Your task to perform on an android device: Show me productivity apps on the Play Store Image 0: 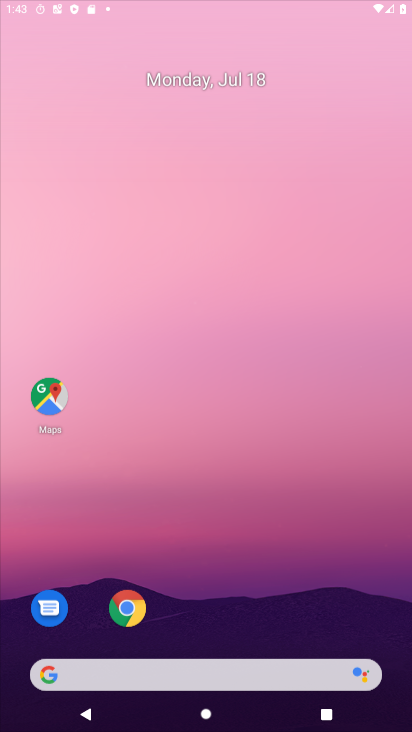
Step 0: click (298, 120)
Your task to perform on an android device: Show me productivity apps on the Play Store Image 1: 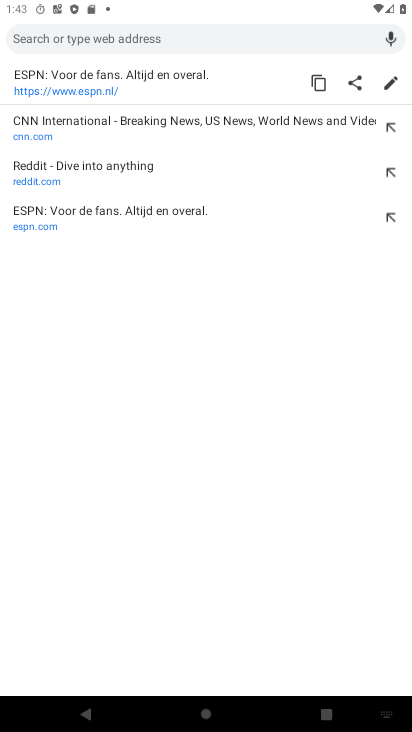
Step 1: press home button
Your task to perform on an android device: Show me productivity apps on the Play Store Image 2: 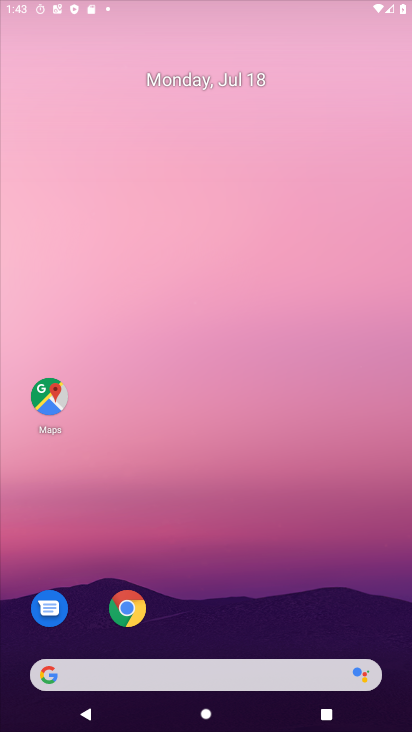
Step 2: drag from (246, 723) to (246, 132)
Your task to perform on an android device: Show me productivity apps on the Play Store Image 3: 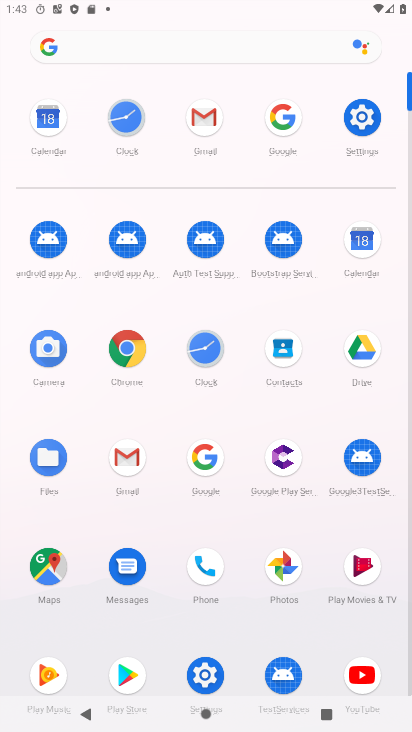
Step 3: click (126, 675)
Your task to perform on an android device: Show me productivity apps on the Play Store Image 4: 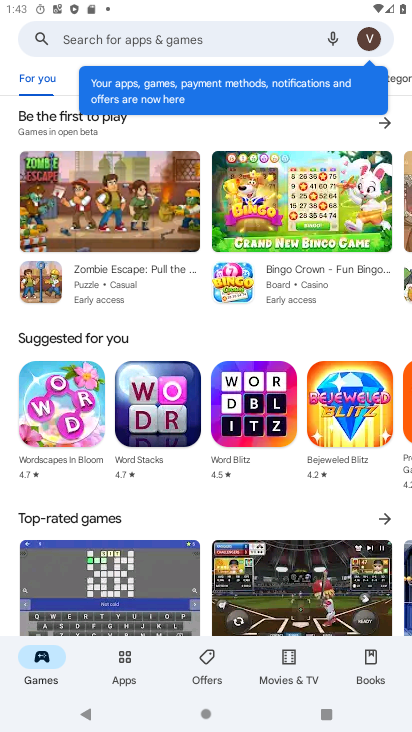
Step 4: click (124, 662)
Your task to perform on an android device: Show me productivity apps on the Play Store Image 5: 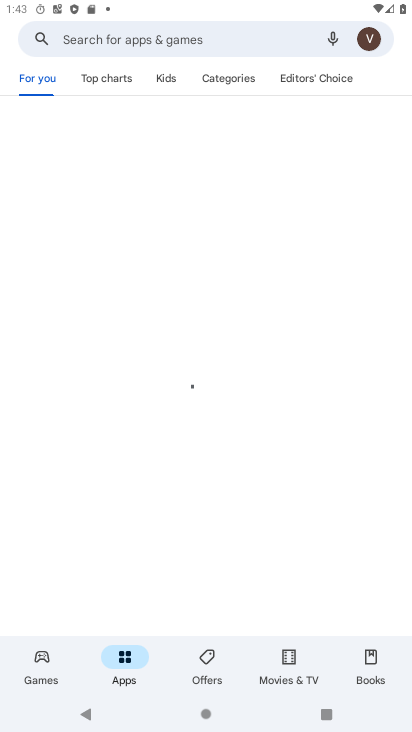
Step 5: click (218, 76)
Your task to perform on an android device: Show me productivity apps on the Play Store Image 6: 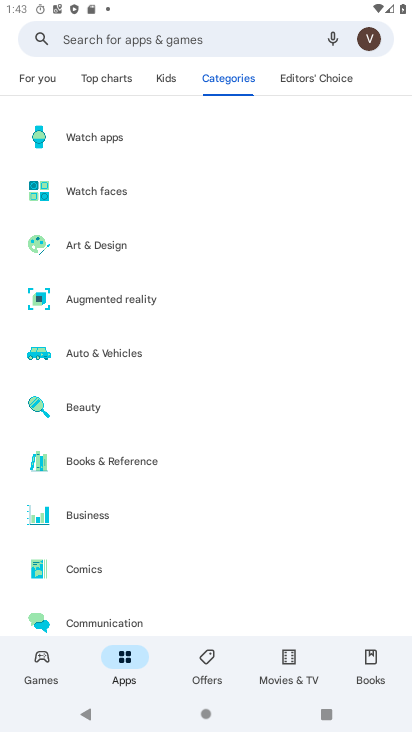
Step 6: drag from (112, 573) to (137, 227)
Your task to perform on an android device: Show me productivity apps on the Play Store Image 7: 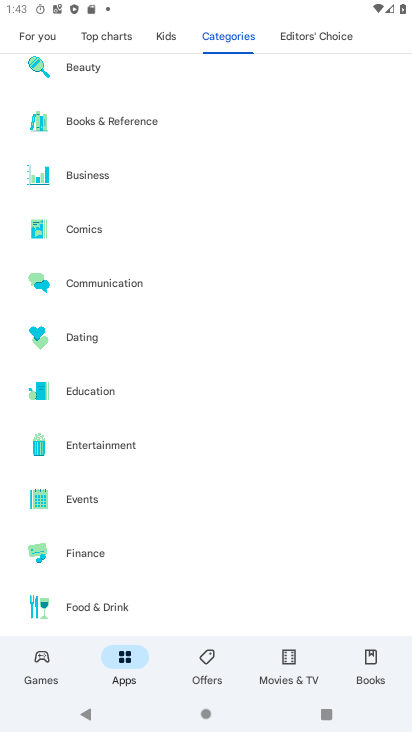
Step 7: drag from (87, 606) to (92, 194)
Your task to perform on an android device: Show me productivity apps on the Play Store Image 8: 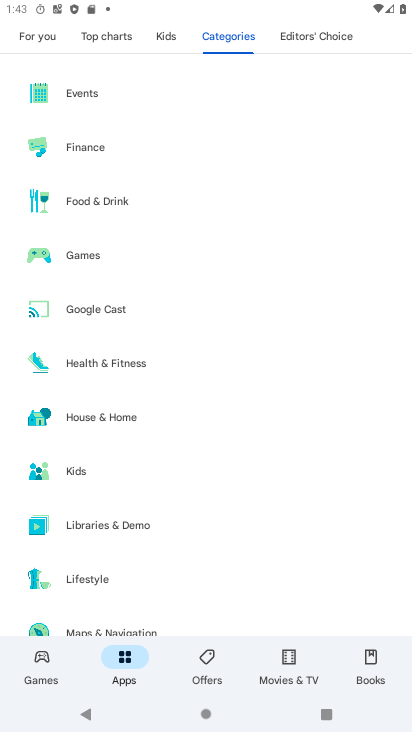
Step 8: drag from (100, 536) to (101, 268)
Your task to perform on an android device: Show me productivity apps on the Play Store Image 9: 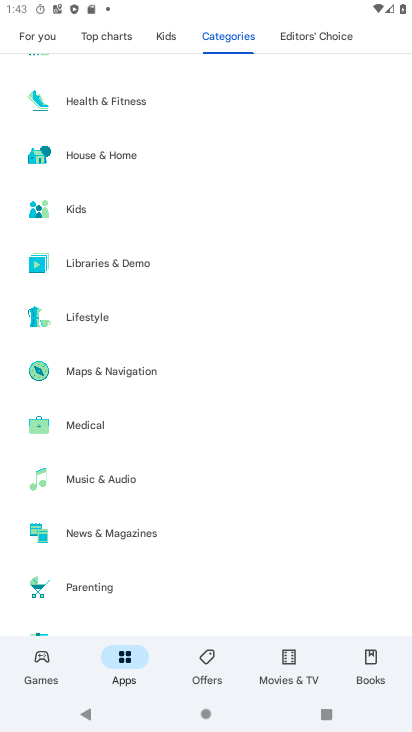
Step 9: drag from (80, 593) to (80, 263)
Your task to perform on an android device: Show me productivity apps on the Play Store Image 10: 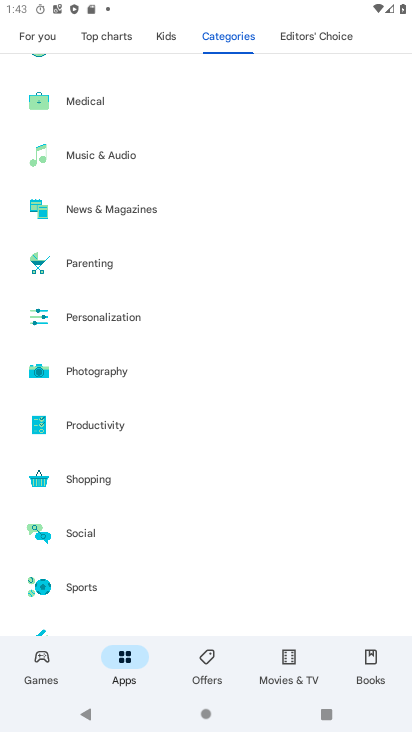
Step 10: click (94, 425)
Your task to perform on an android device: Show me productivity apps on the Play Store Image 11: 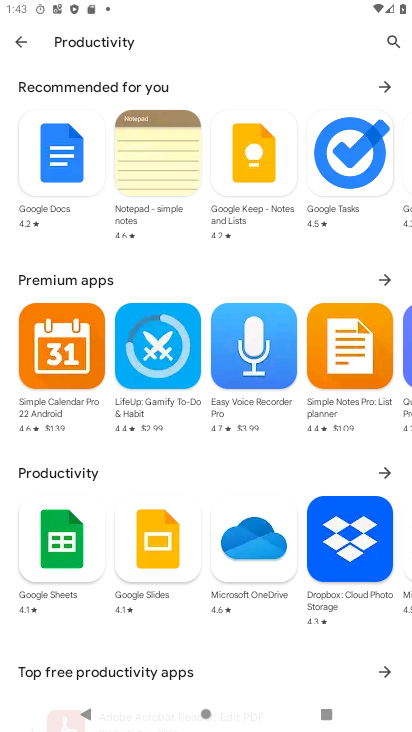
Step 11: task complete